Your task to perform on an android device: change the clock display to analog Image 0: 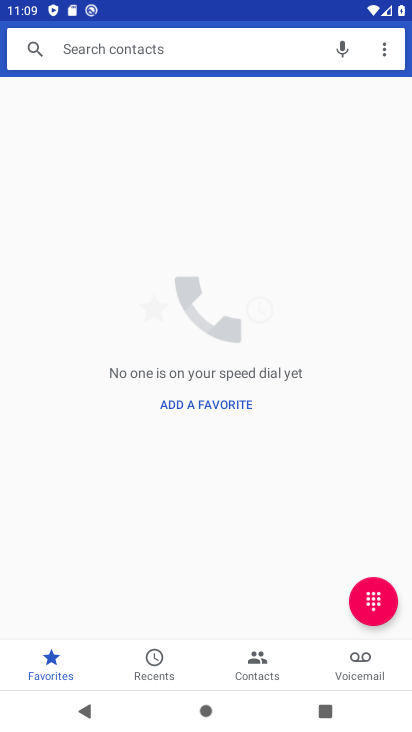
Step 0: press home button
Your task to perform on an android device: change the clock display to analog Image 1: 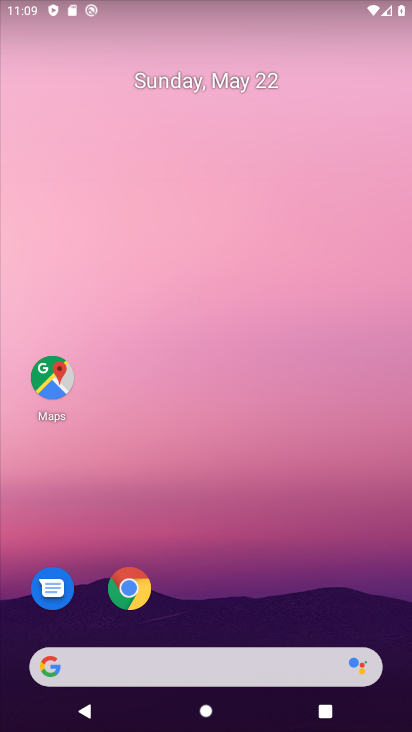
Step 1: drag from (195, 627) to (192, 69)
Your task to perform on an android device: change the clock display to analog Image 2: 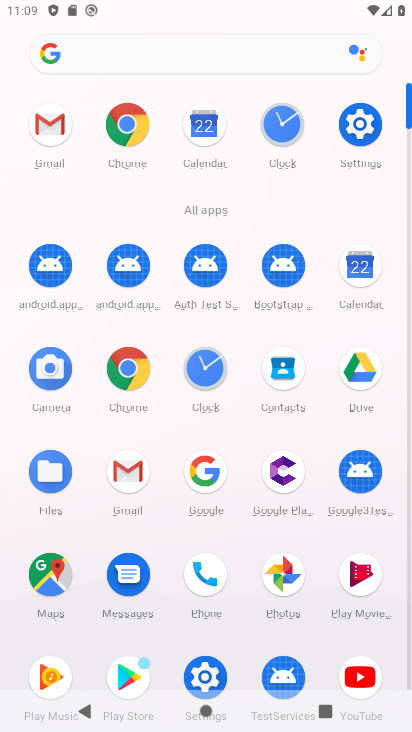
Step 2: click (207, 375)
Your task to perform on an android device: change the clock display to analog Image 3: 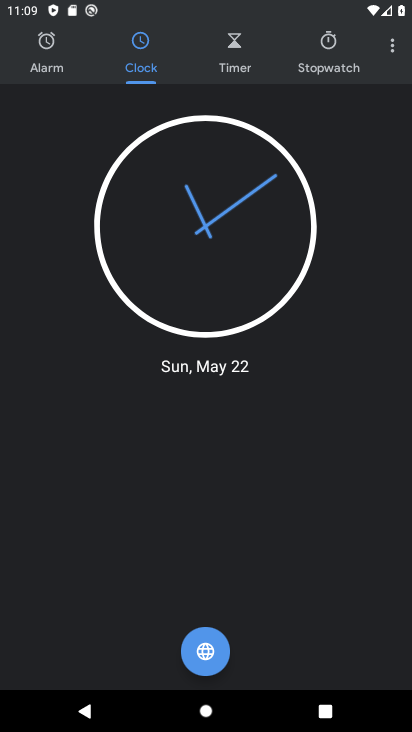
Step 3: click (394, 49)
Your task to perform on an android device: change the clock display to analog Image 4: 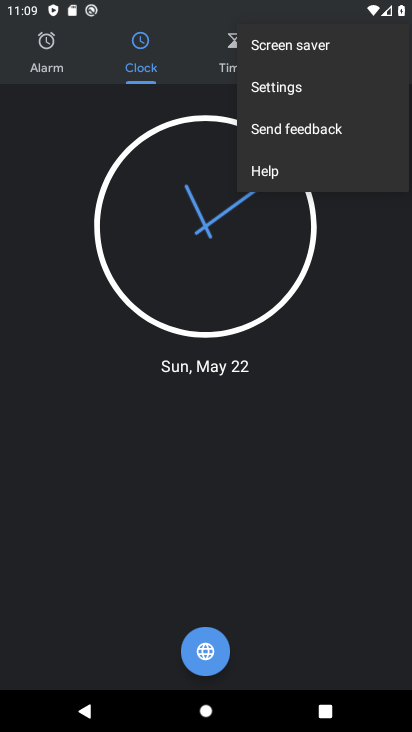
Step 4: click (299, 82)
Your task to perform on an android device: change the clock display to analog Image 5: 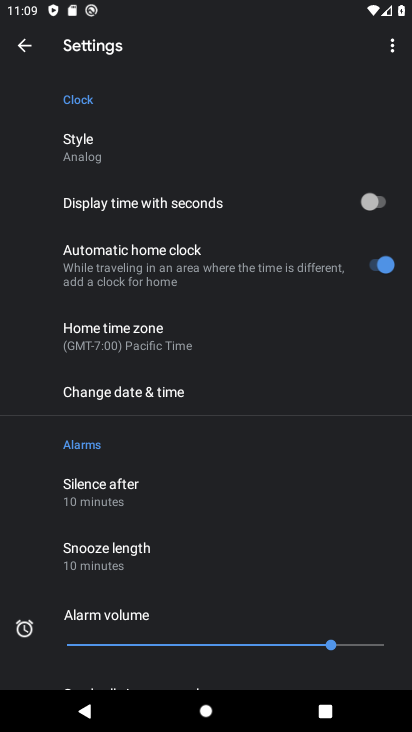
Step 5: click (115, 128)
Your task to perform on an android device: change the clock display to analog Image 6: 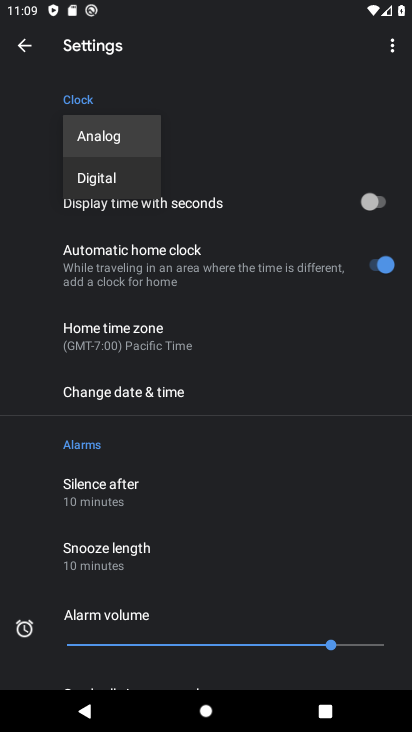
Step 6: click (115, 132)
Your task to perform on an android device: change the clock display to analog Image 7: 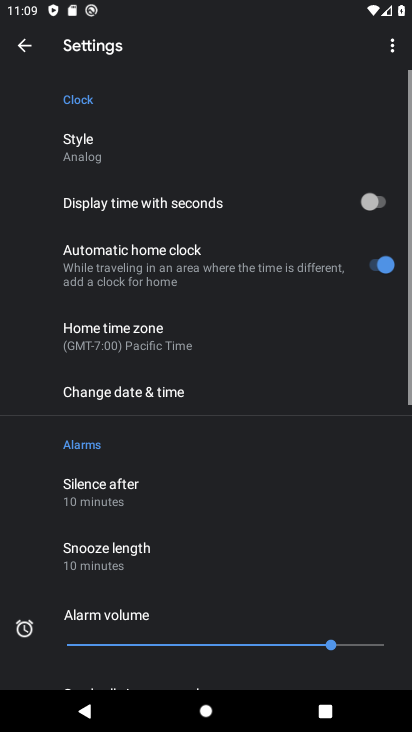
Step 7: task complete